Your task to perform on an android device: change notifications settings Image 0: 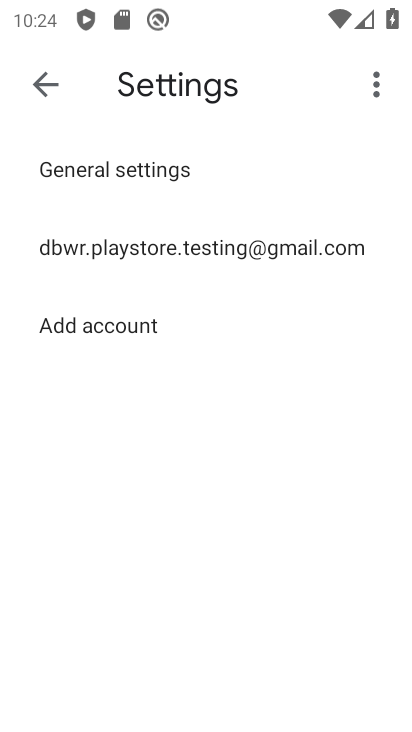
Step 0: press home button
Your task to perform on an android device: change notifications settings Image 1: 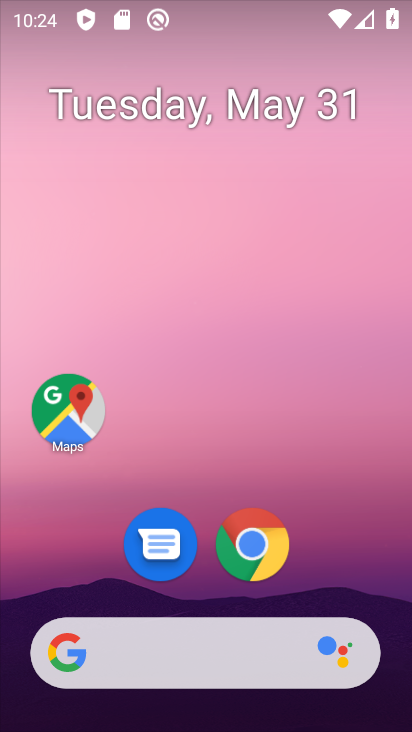
Step 1: drag from (205, 594) to (222, 126)
Your task to perform on an android device: change notifications settings Image 2: 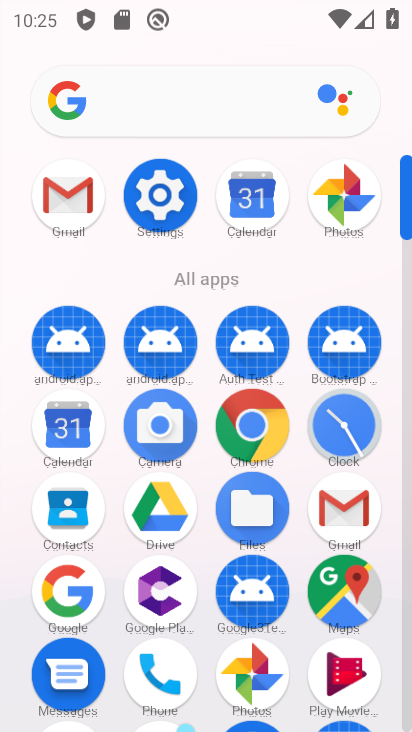
Step 2: click (142, 205)
Your task to perform on an android device: change notifications settings Image 3: 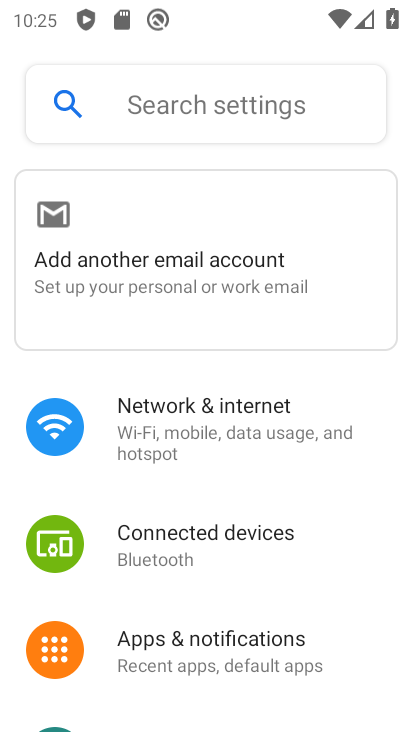
Step 3: drag from (245, 599) to (255, 382)
Your task to perform on an android device: change notifications settings Image 4: 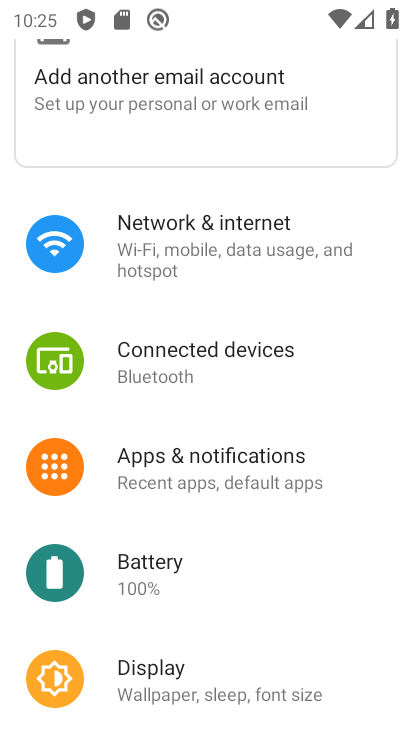
Step 4: click (245, 447)
Your task to perform on an android device: change notifications settings Image 5: 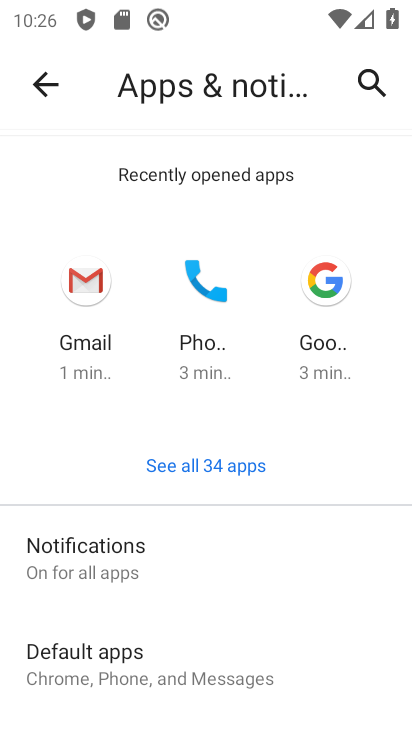
Step 5: click (145, 568)
Your task to perform on an android device: change notifications settings Image 6: 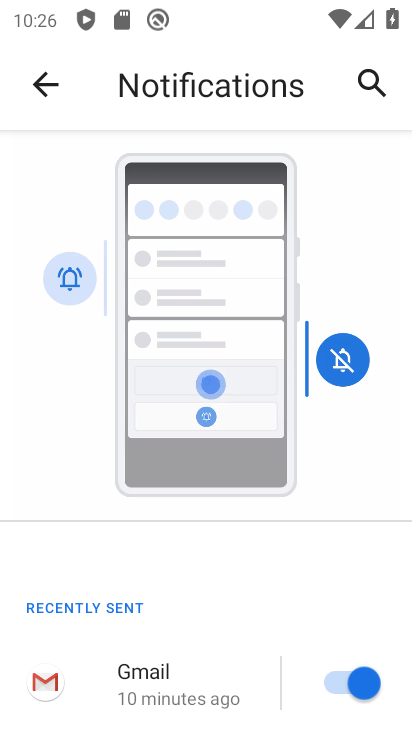
Step 6: drag from (144, 654) to (154, 181)
Your task to perform on an android device: change notifications settings Image 7: 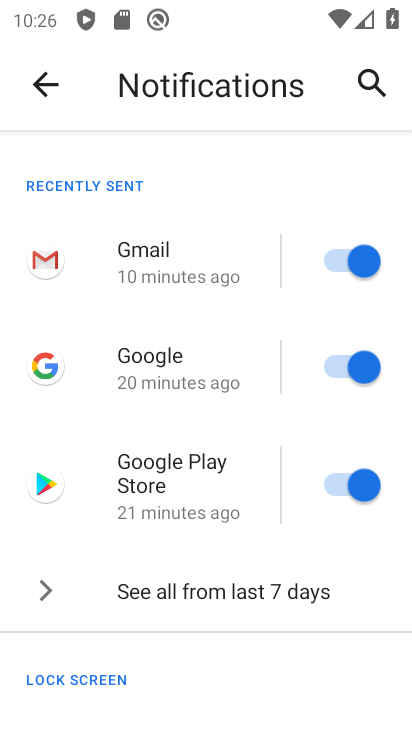
Step 7: drag from (201, 579) to (203, 197)
Your task to perform on an android device: change notifications settings Image 8: 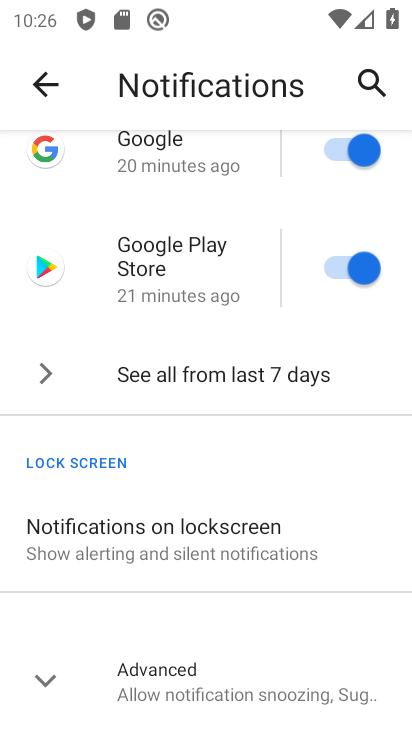
Step 8: drag from (241, 585) to (246, 219)
Your task to perform on an android device: change notifications settings Image 9: 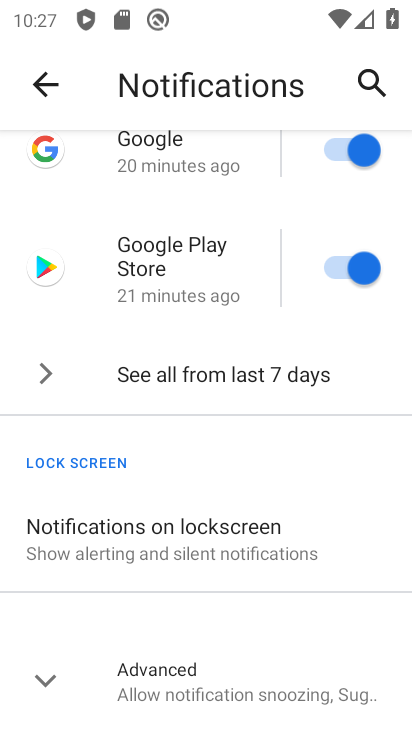
Step 9: drag from (180, 172) to (226, 425)
Your task to perform on an android device: change notifications settings Image 10: 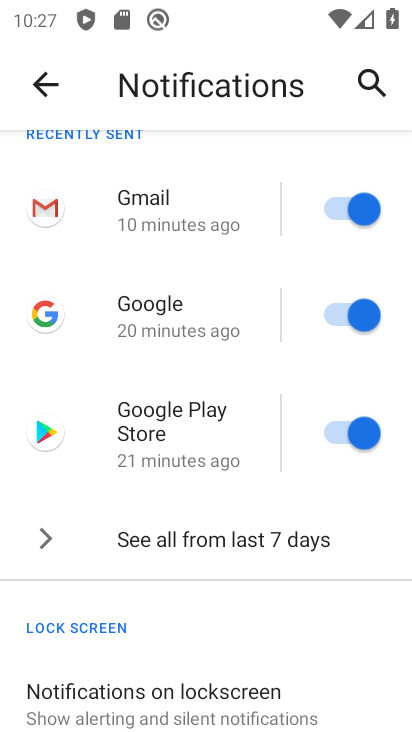
Step 10: drag from (188, 258) to (202, 524)
Your task to perform on an android device: change notifications settings Image 11: 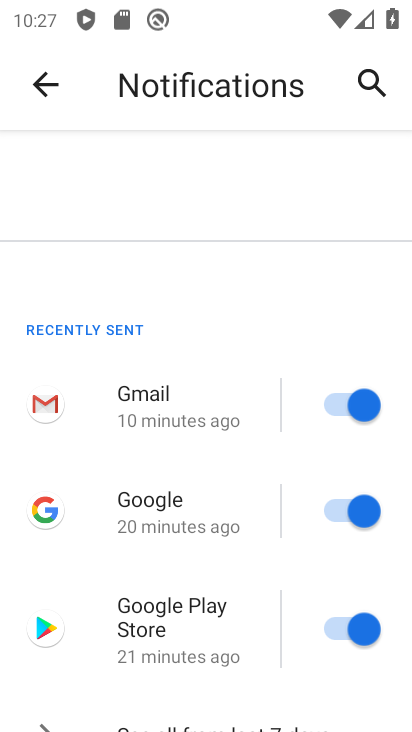
Step 11: drag from (205, 649) to (221, 242)
Your task to perform on an android device: change notifications settings Image 12: 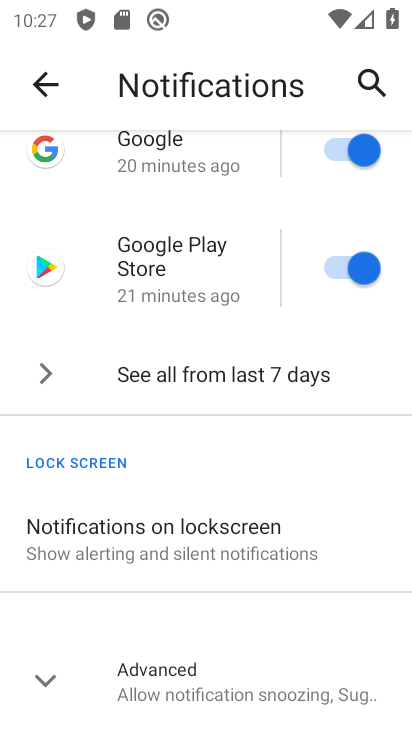
Step 12: drag from (248, 667) to (239, 439)
Your task to perform on an android device: change notifications settings Image 13: 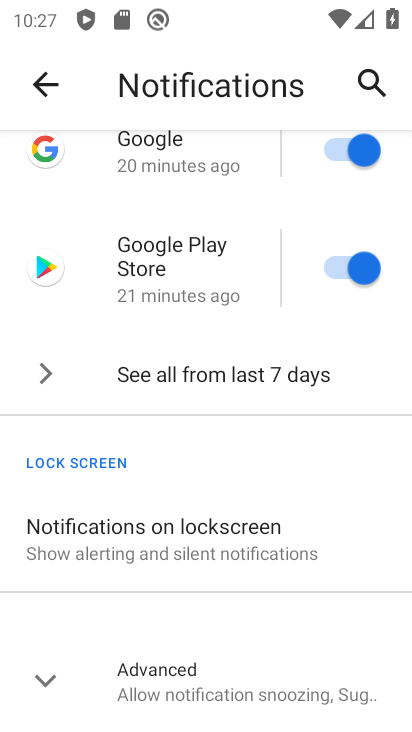
Step 13: click (276, 671)
Your task to perform on an android device: change notifications settings Image 14: 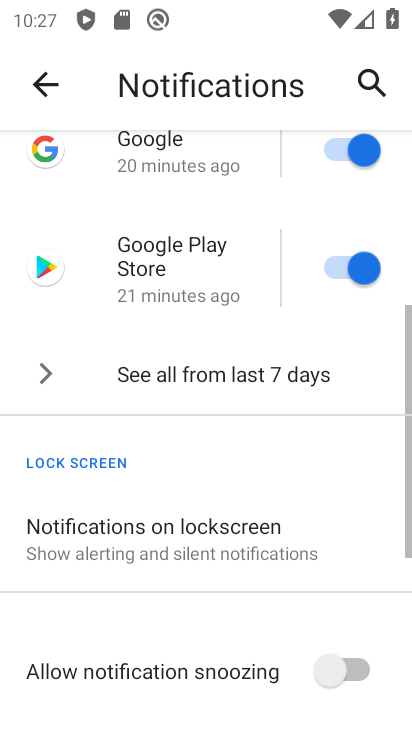
Step 14: click (227, 540)
Your task to perform on an android device: change notifications settings Image 15: 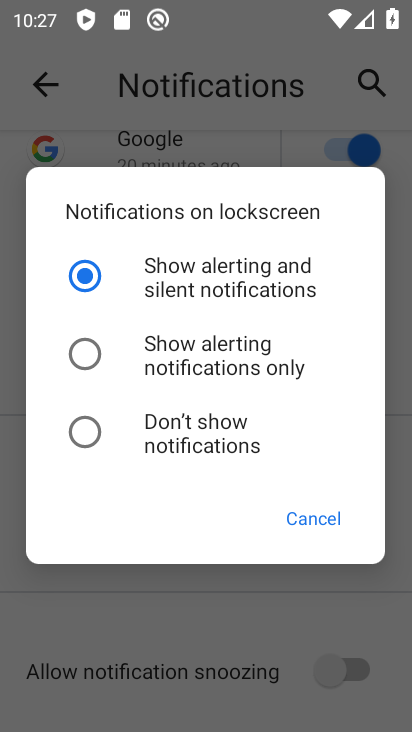
Step 15: click (205, 413)
Your task to perform on an android device: change notifications settings Image 16: 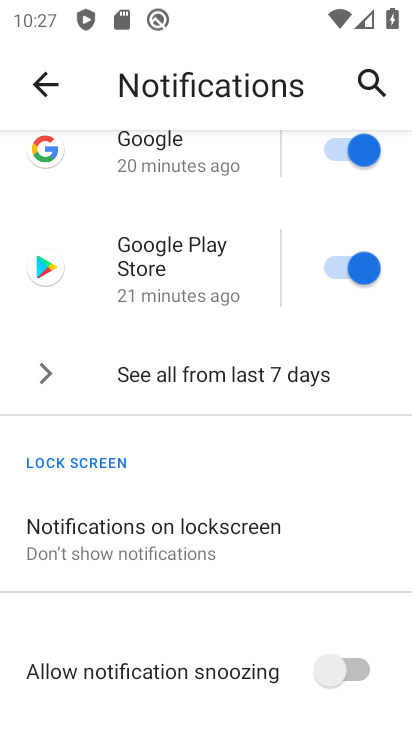
Step 16: task complete